Your task to perform on an android device: uninstall "Facebook Messenger" Image 0: 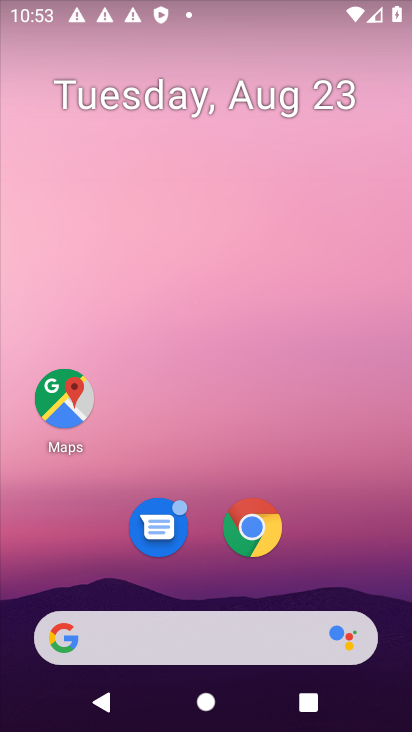
Step 0: drag from (214, 594) to (291, 5)
Your task to perform on an android device: uninstall "Facebook Messenger" Image 1: 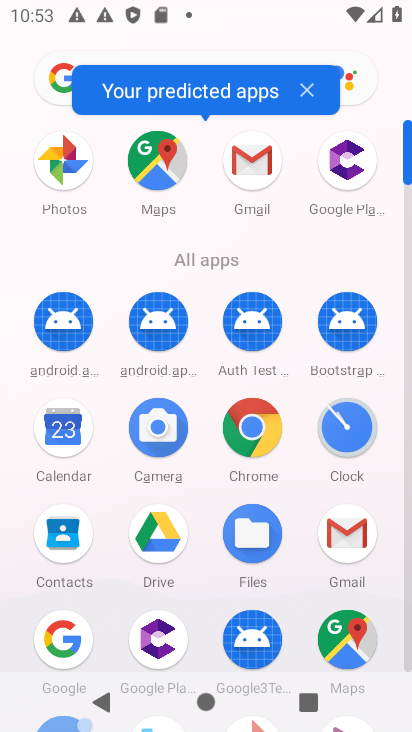
Step 1: drag from (138, 638) to (248, 107)
Your task to perform on an android device: uninstall "Facebook Messenger" Image 2: 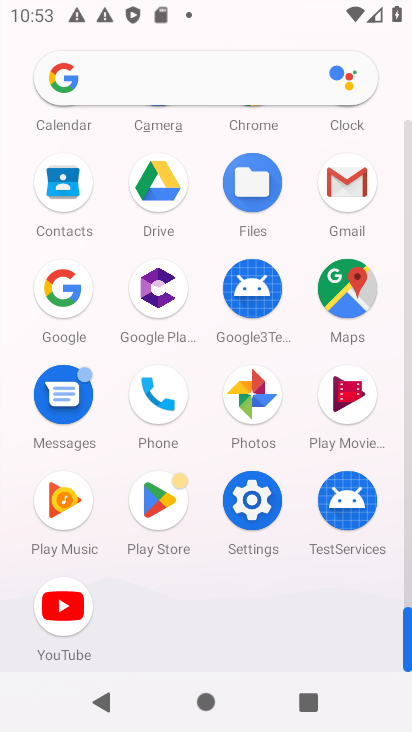
Step 2: click (159, 518)
Your task to perform on an android device: uninstall "Facebook Messenger" Image 3: 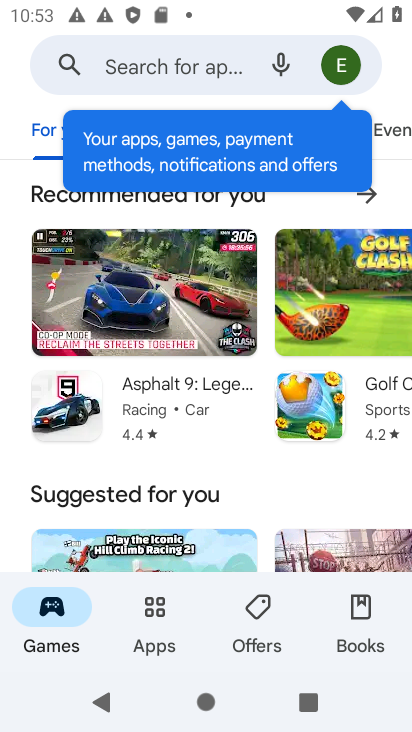
Step 3: click (146, 71)
Your task to perform on an android device: uninstall "Facebook Messenger" Image 4: 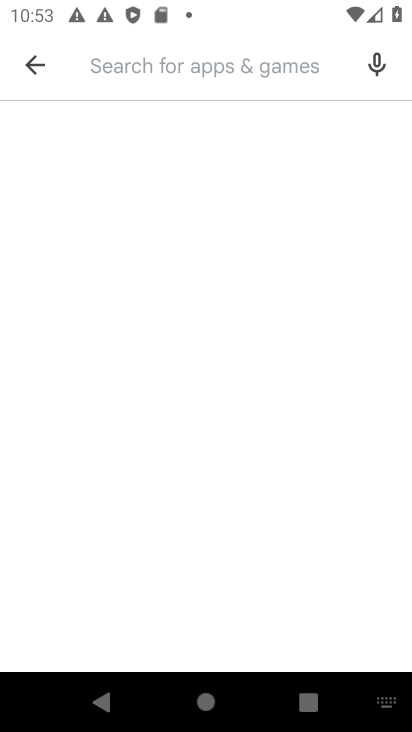
Step 4: type "Facebook Messenger"
Your task to perform on an android device: uninstall "Facebook Messenger" Image 5: 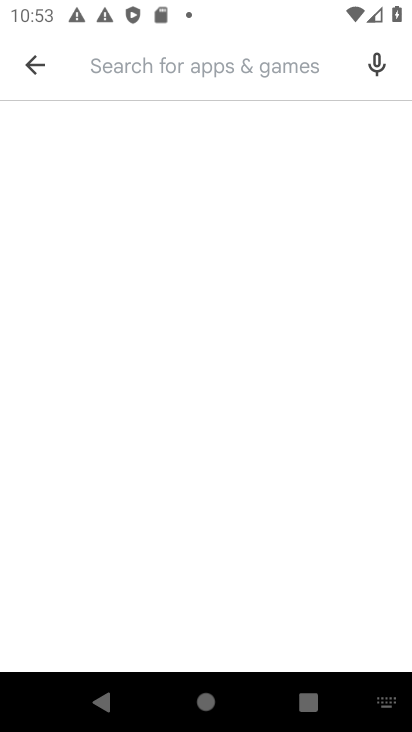
Step 5: click (291, 573)
Your task to perform on an android device: uninstall "Facebook Messenger" Image 6: 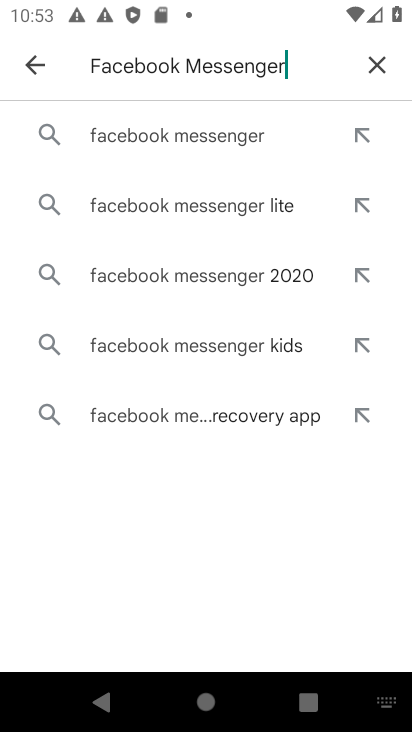
Step 6: click (170, 128)
Your task to perform on an android device: uninstall "Facebook Messenger" Image 7: 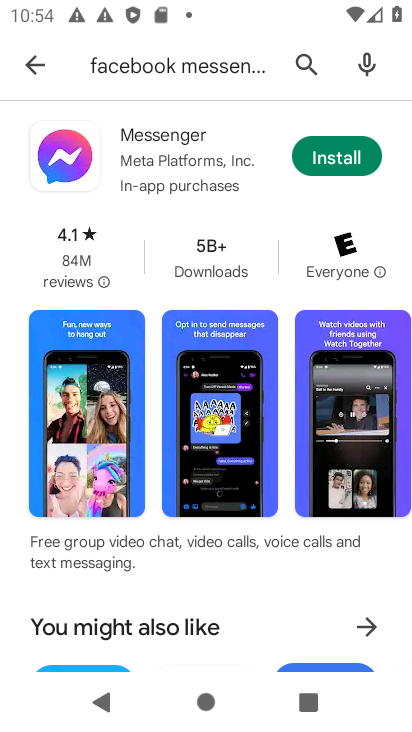
Step 7: task complete